Your task to perform on an android device: refresh tabs in the chrome app Image 0: 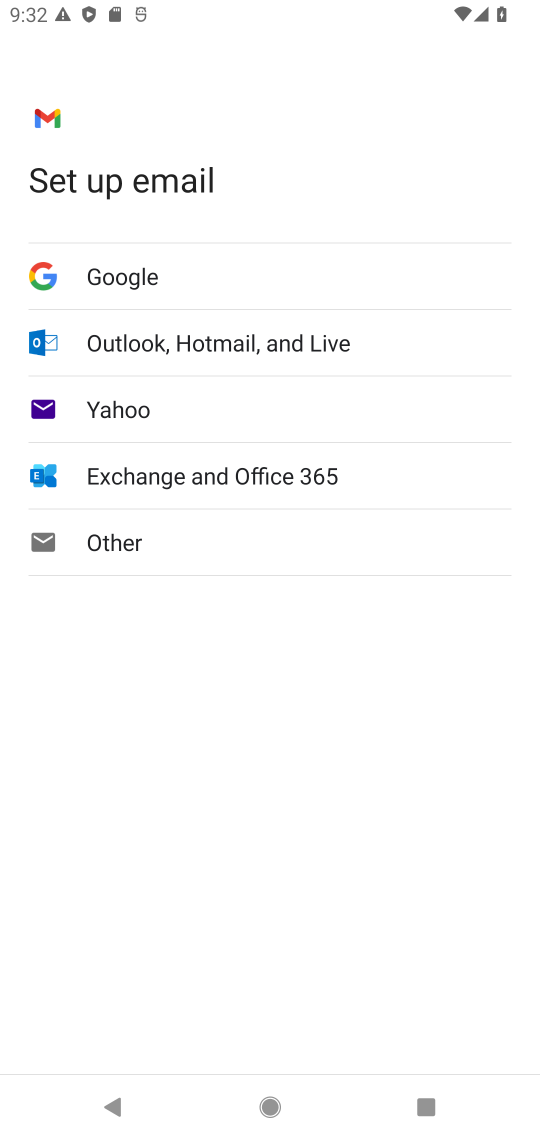
Step 0: press home button
Your task to perform on an android device: refresh tabs in the chrome app Image 1: 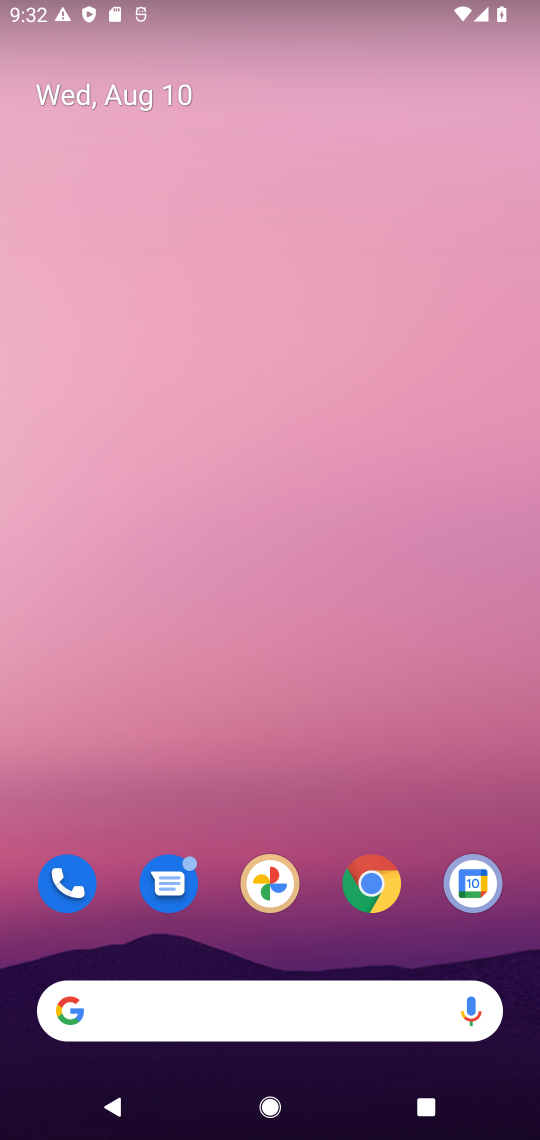
Step 1: drag from (284, 879) to (210, 215)
Your task to perform on an android device: refresh tabs in the chrome app Image 2: 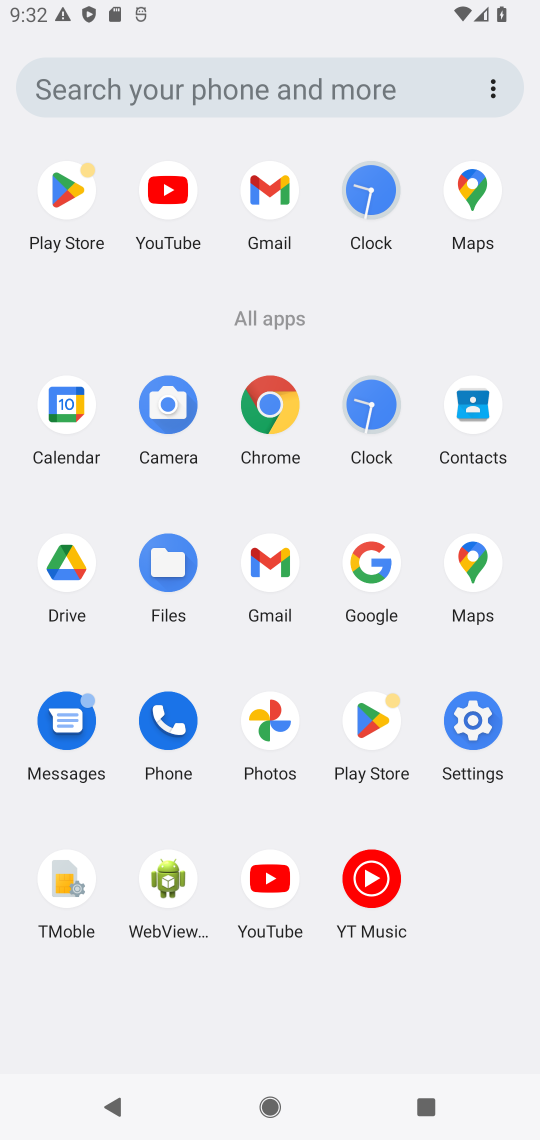
Step 2: click (254, 451)
Your task to perform on an android device: refresh tabs in the chrome app Image 3: 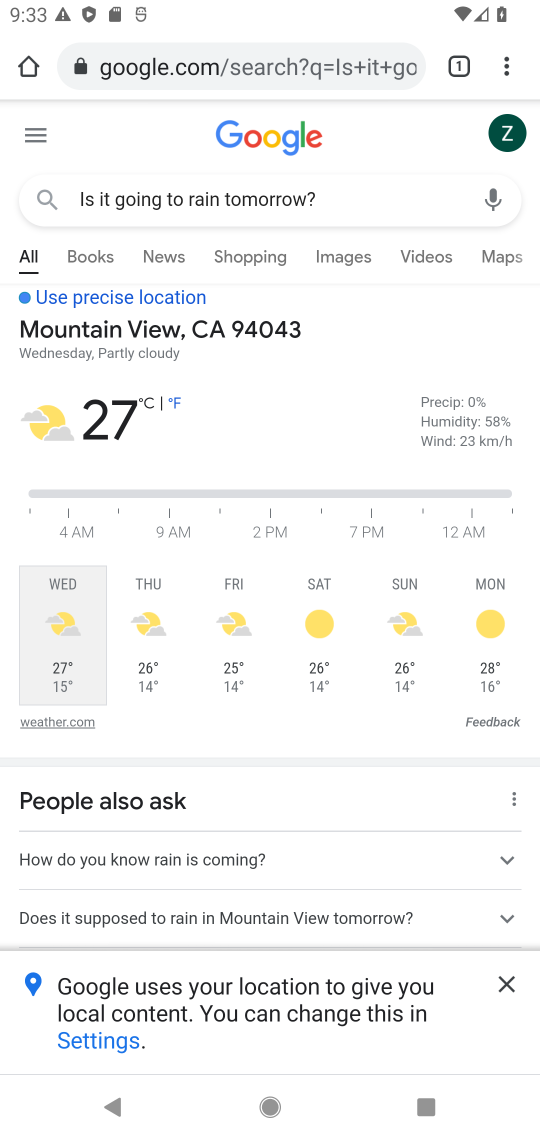
Step 3: click (503, 67)
Your task to perform on an android device: refresh tabs in the chrome app Image 4: 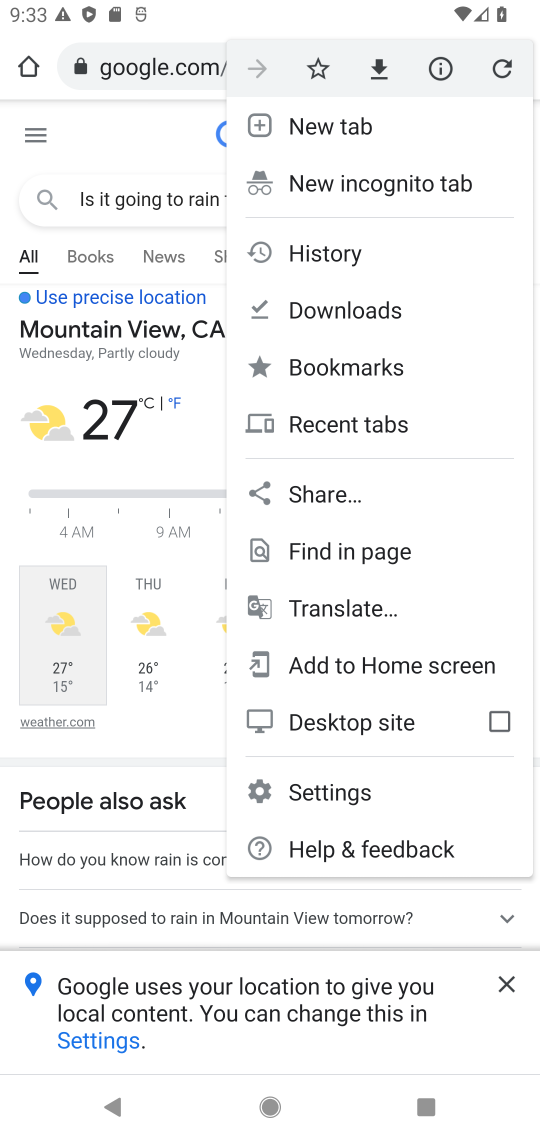
Step 4: click (503, 67)
Your task to perform on an android device: refresh tabs in the chrome app Image 5: 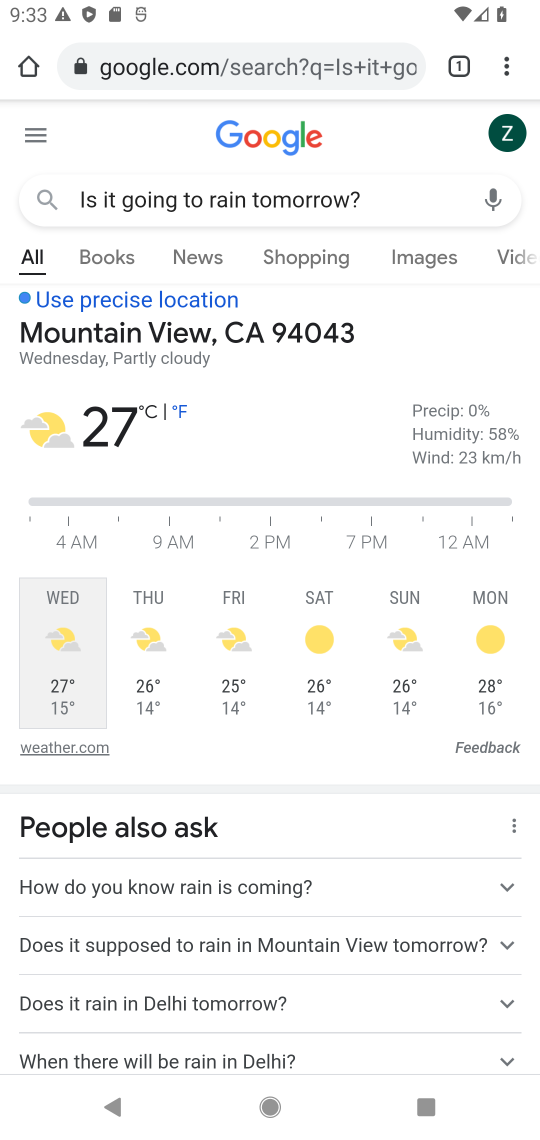
Step 5: click (512, 71)
Your task to perform on an android device: refresh tabs in the chrome app Image 6: 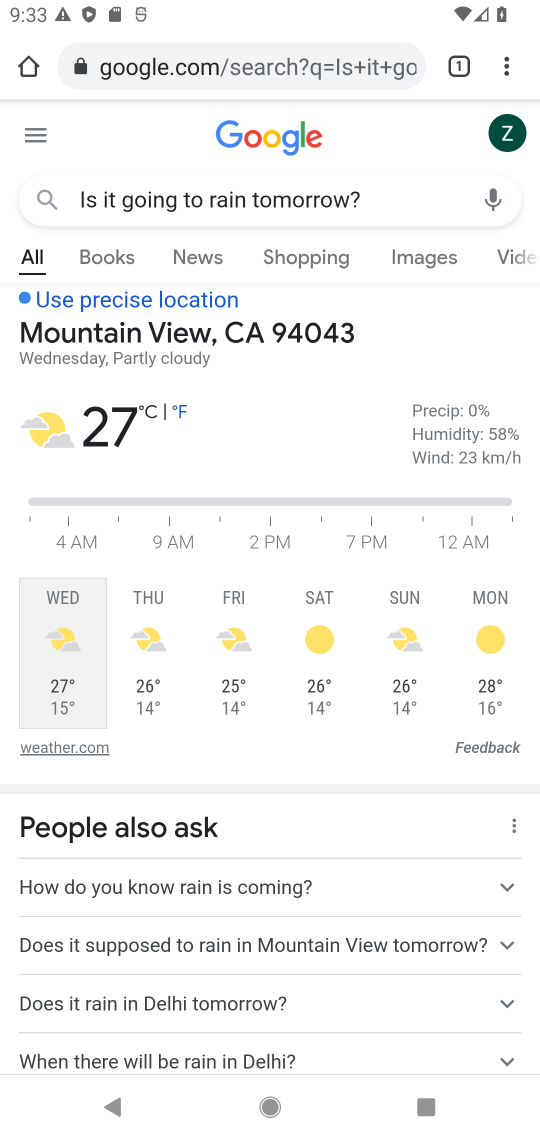
Step 6: task complete